Your task to perform on an android device: Go to Yahoo.com Image 0: 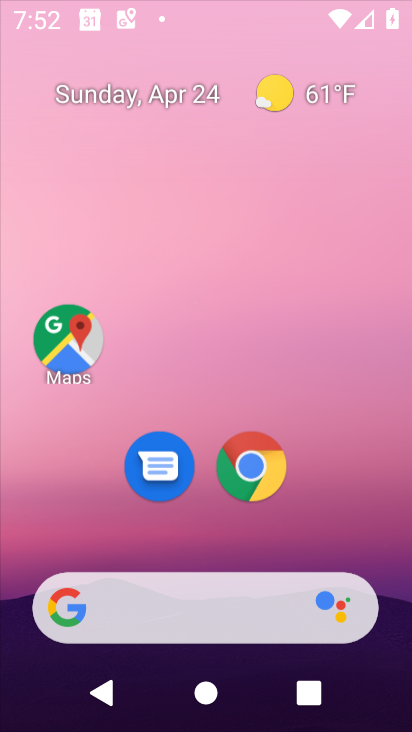
Step 0: click (280, 39)
Your task to perform on an android device: Go to Yahoo.com Image 1: 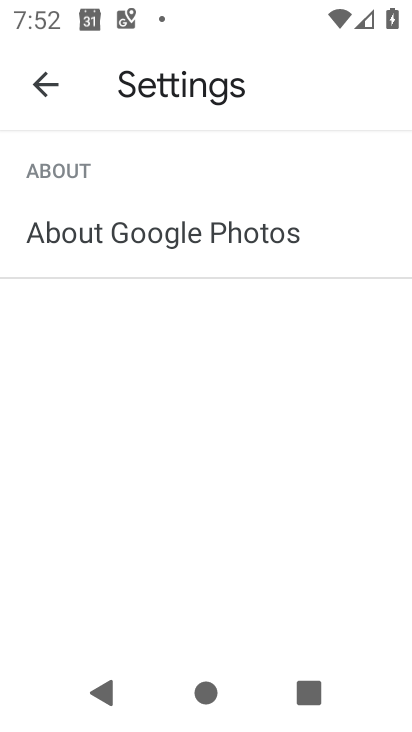
Step 1: press home button
Your task to perform on an android device: Go to Yahoo.com Image 2: 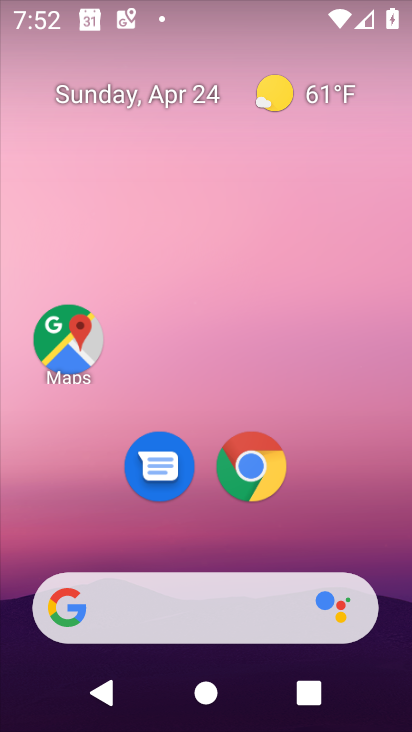
Step 2: click (258, 468)
Your task to perform on an android device: Go to Yahoo.com Image 3: 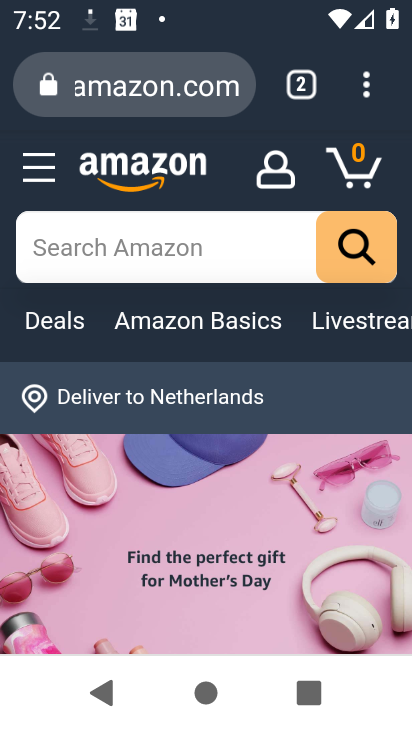
Step 3: click (209, 88)
Your task to perform on an android device: Go to Yahoo.com Image 4: 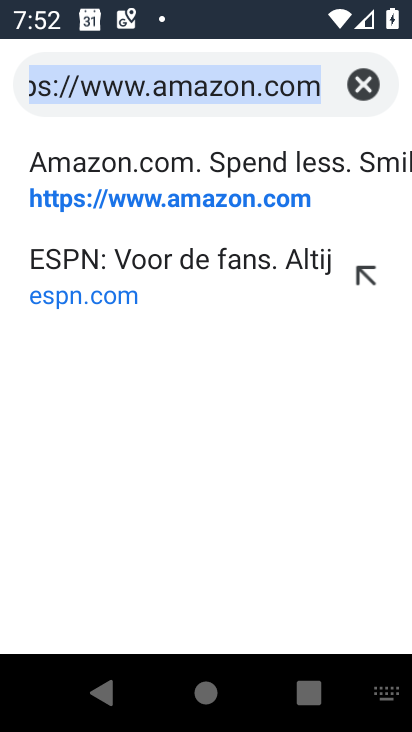
Step 4: type "yahoo.com"
Your task to perform on an android device: Go to Yahoo.com Image 5: 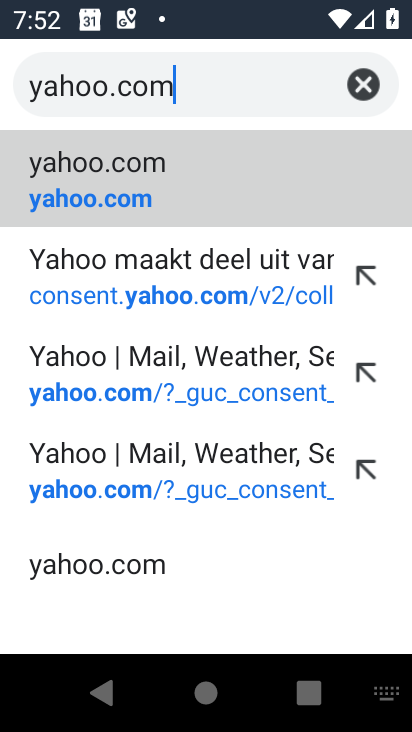
Step 5: click (210, 178)
Your task to perform on an android device: Go to Yahoo.com Image 6: 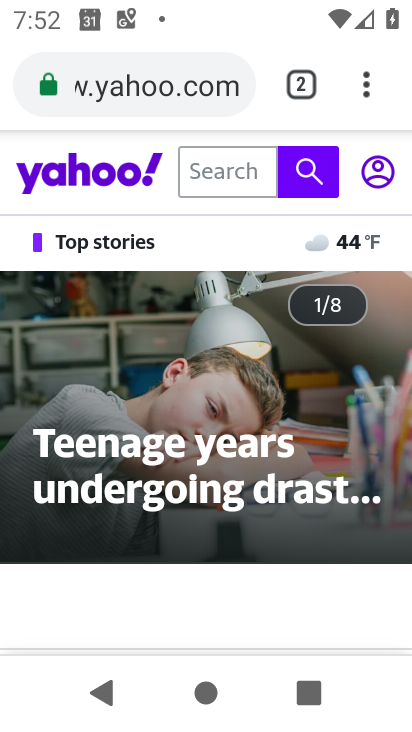
Step 6: task complete